Your task to perform on an android device: Go to Yahoo.com Image 0: 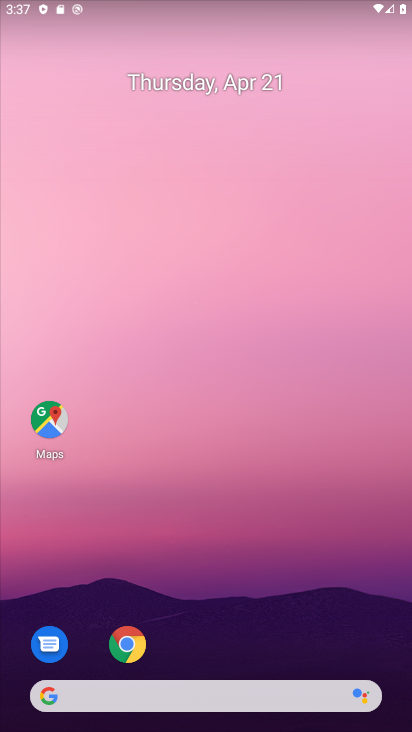
Step 0: click (122, 646)
Your task to perform on an android device: Go to Yahoo.com Image 1: 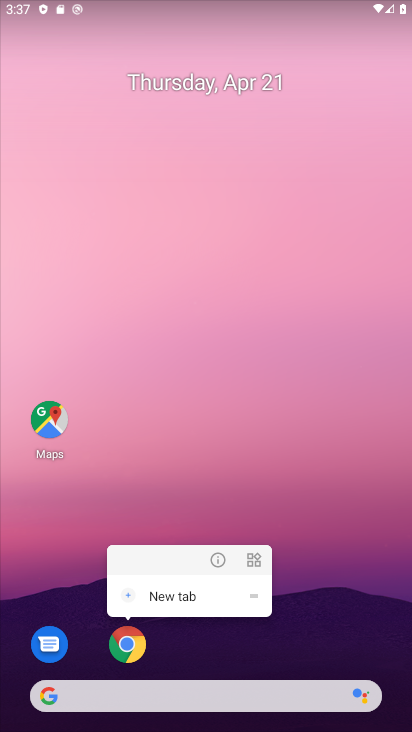
Step 1: click (216, 552)
Your task to perform on an android device: Go to Yahoo.com Image 2: 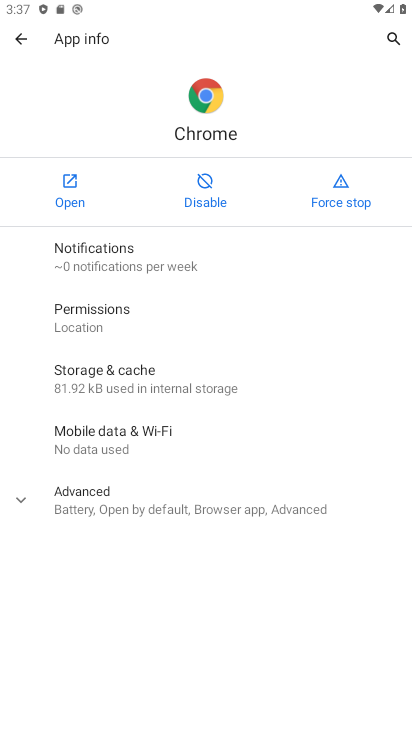
Step 2: click (73, 177)
Your task to perform on an android device: Go to Yahoo.com Image 3: 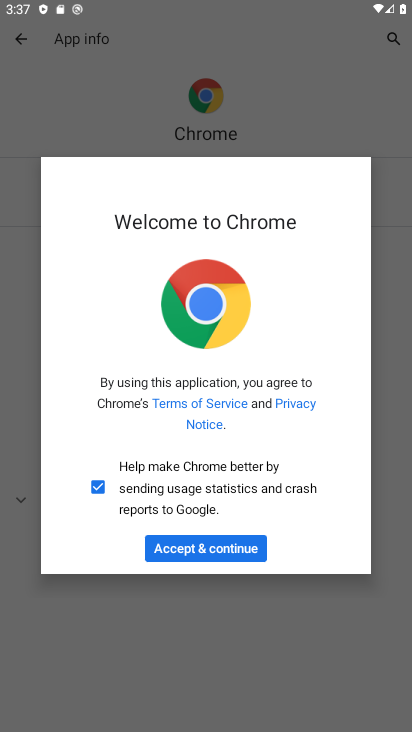
Step 3: click (237, 545)
Your task to perform on an android device: Go to Yahoo.com Image 4: 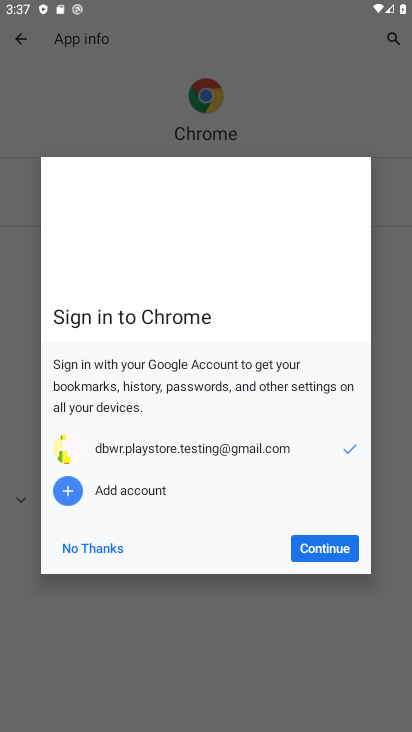
Step 4: click (315, 547)
Your task to perform on an android device: Go to Yahoo.com Image 5: 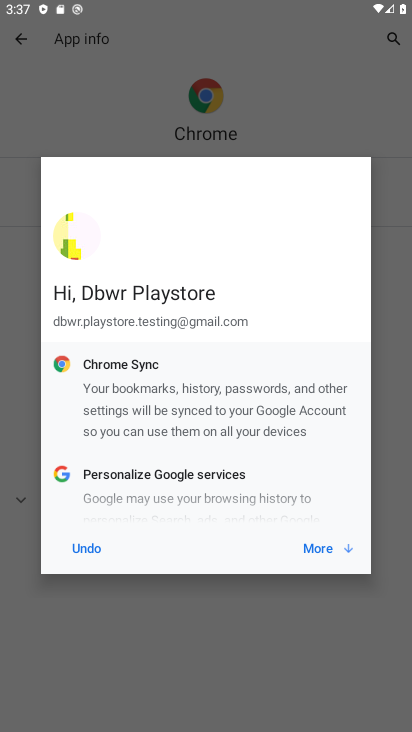
Step 5: click (327, 545)
Your task to perform on an android device: Go to Yahoo.com Image 6: 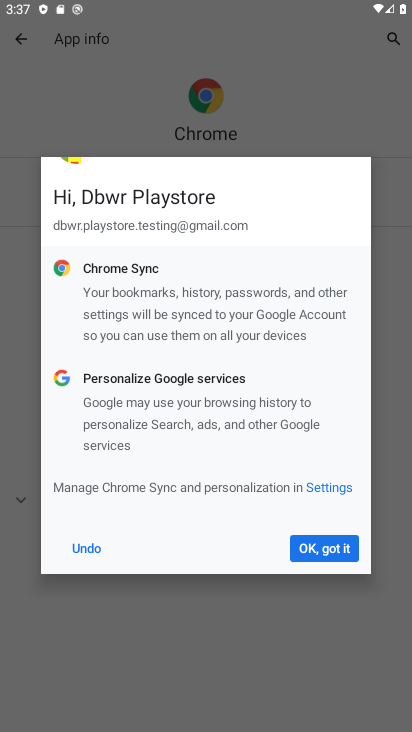
Step 6: click (326, 545)
Your task to perform on an android device: Go to Yahoo.com Image 7: 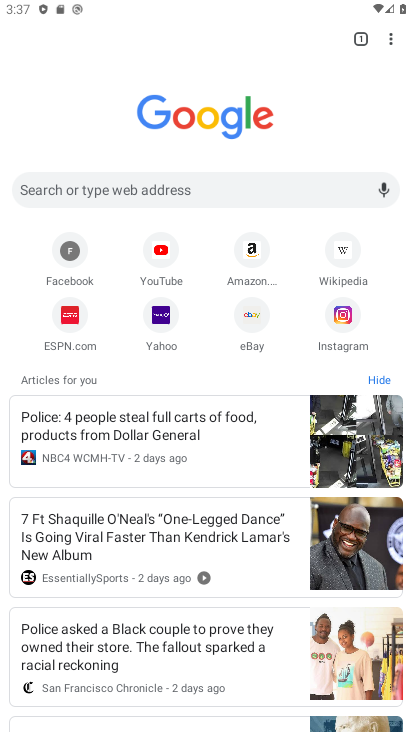
Step 7: click (112, 182)
Your task to perform on an android device: Go to Yahoo.com Image 8: 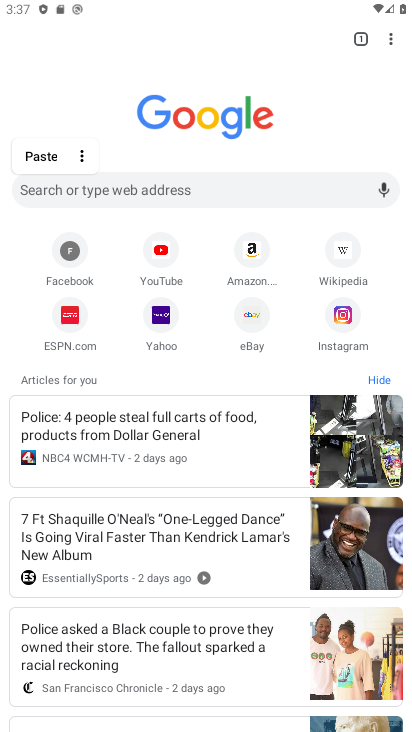
Step 8: type "Yahoo.com"
Your task to perform on an android device: Go to Yahoo.com Image 9: 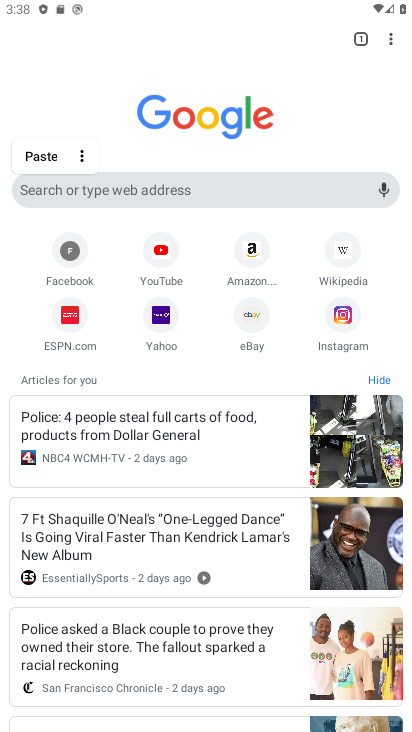
Step 9: click (38, 181)
Your task to perform on an android device: Go to Yahoo.com Image 10: 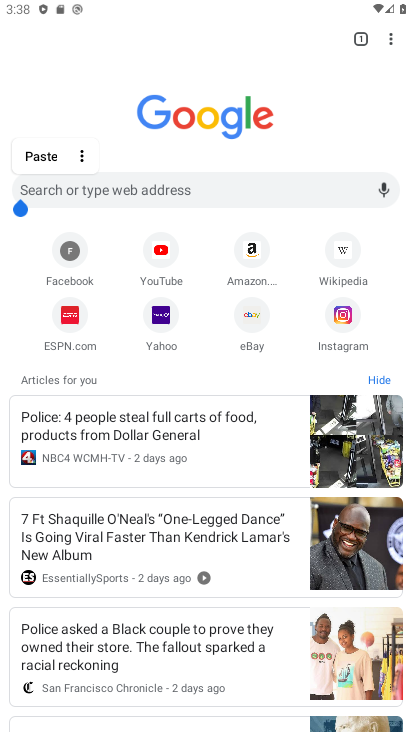
Step 10: click (58, 194)
Your task to perform on an android device: Go to Yahoo.com Image 11: 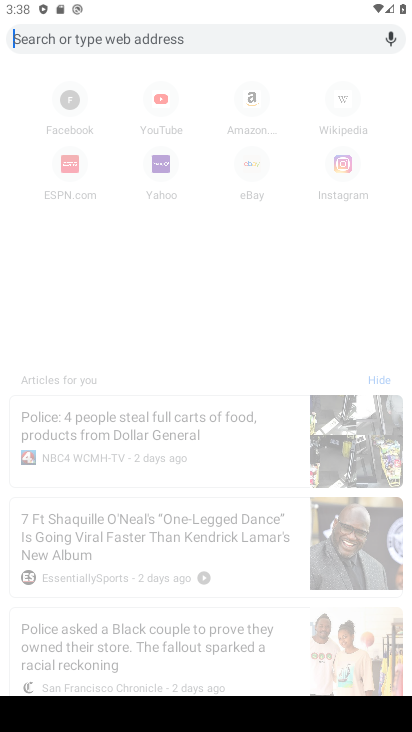
Step 11: type "Yahoo.com"
Your task to perform on an android device: Go to Yahoo.com Image 12: 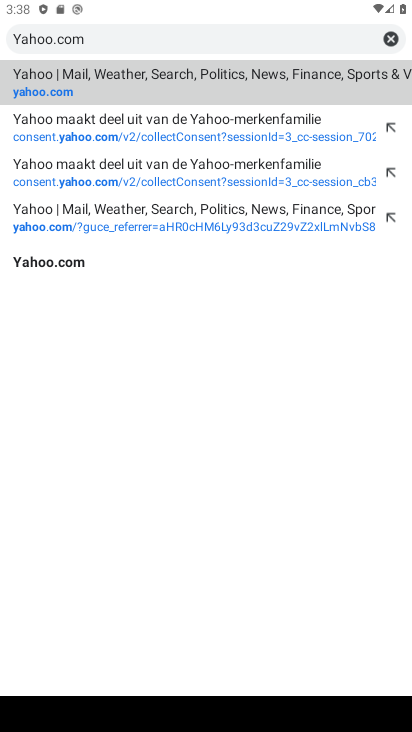
Step 12: click (151, 81)
Your task to perform on an android device: Go to Yahoo.com Image 13: 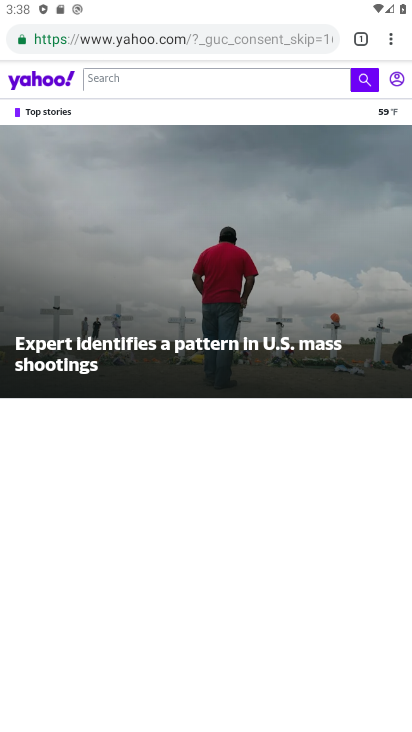
Step 13: task complete